Your task to perform on an android device: Open network settings Image 0: 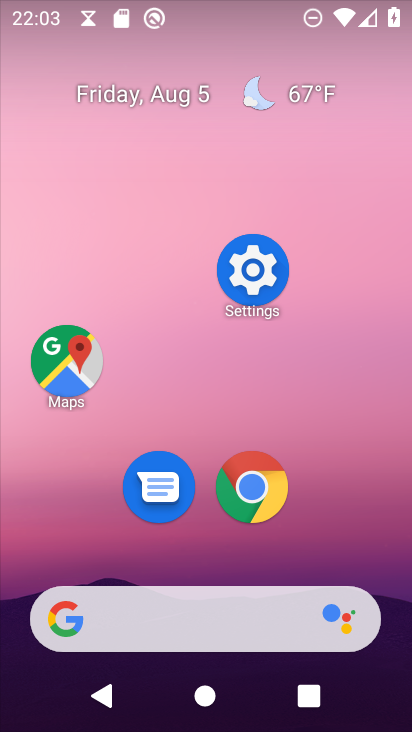
Step 0: click (249, 271)
Your task to perform on an android device: Open network settings Image 1: 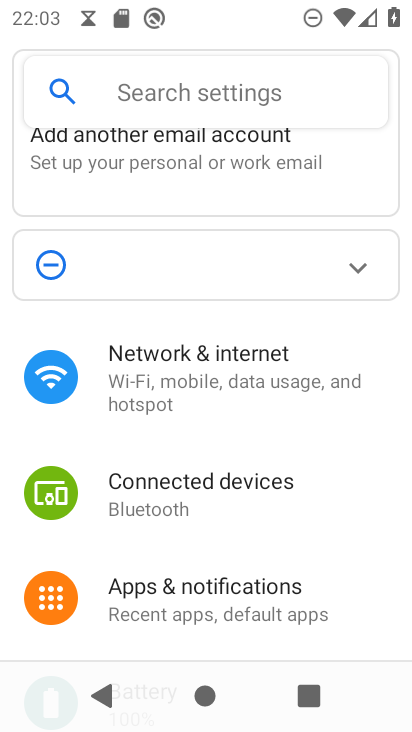
Step 1: drag from (242, 552) to (256, 291)
Your task to perform on an android device: Open network settings Image 2: 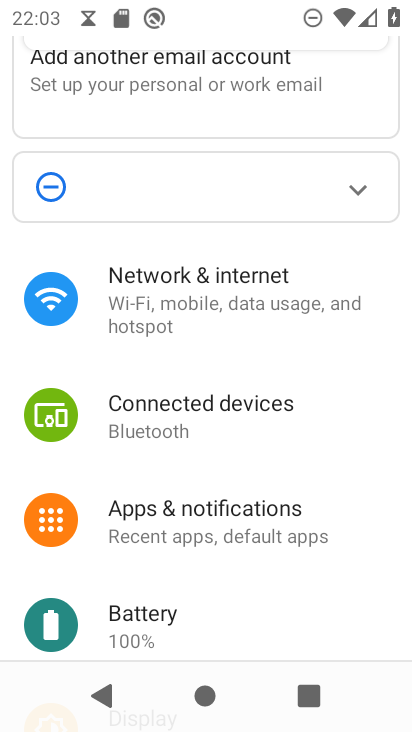
Step 2: click (207, 287)
Your task to perform on an android device: Open network settings Image 3: 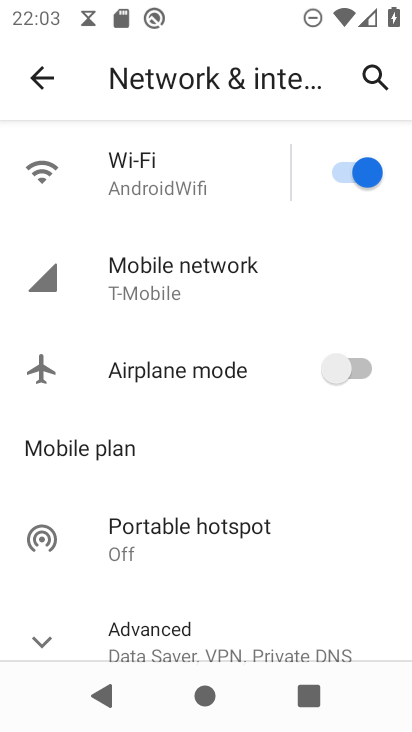
Step 3: click (224, 268)
Your task to perform on an android device: Open network settings Image 4: 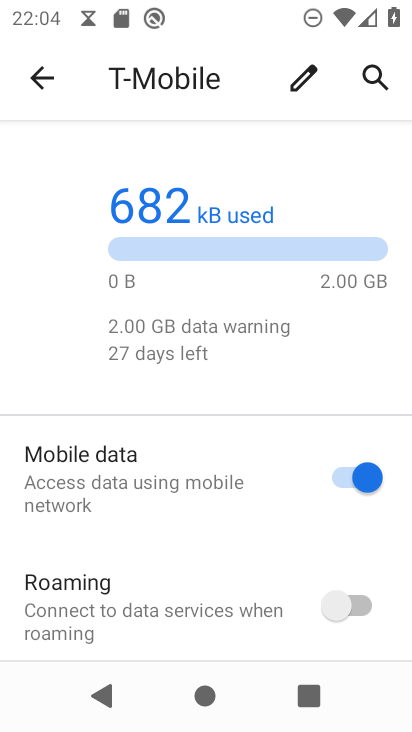
Step 4: task complete